Your task to perform on an android device: change notifications settings Image 0: 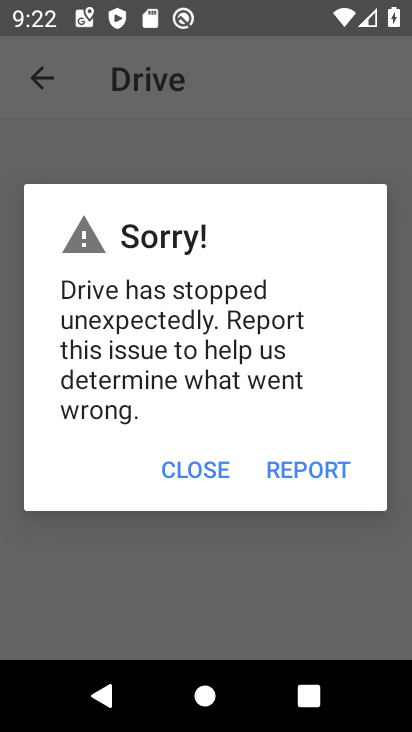
Step 0: click (334, 562)
Your task to perform on an android device: change notifications settings Image 1: 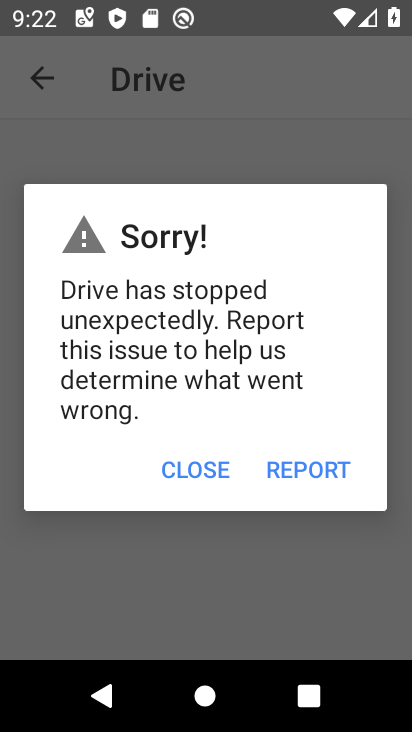
Step 1: press back button
Your task to perform on an android device: change notifications settings Image 2: 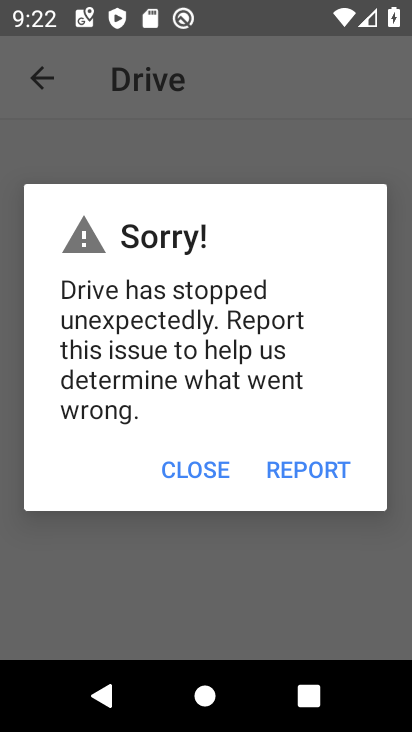
Step 2: press home button
Your task to perform on an android device: change notifications settings Image 3: 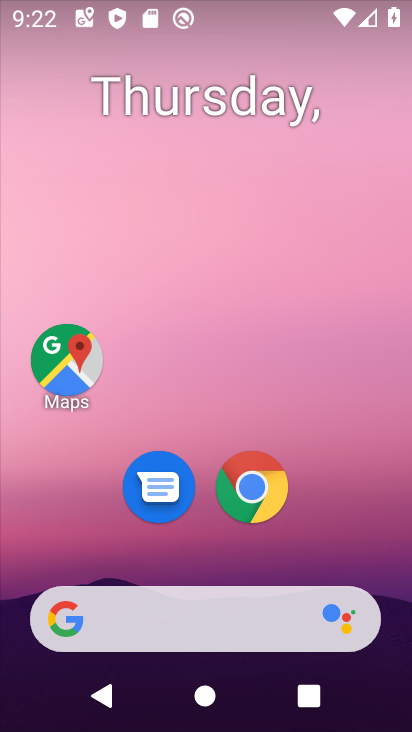
Step 3: drag from (343, 562) to (216, 280)
Your task to perform on an android device: change notifications settings Image 4: 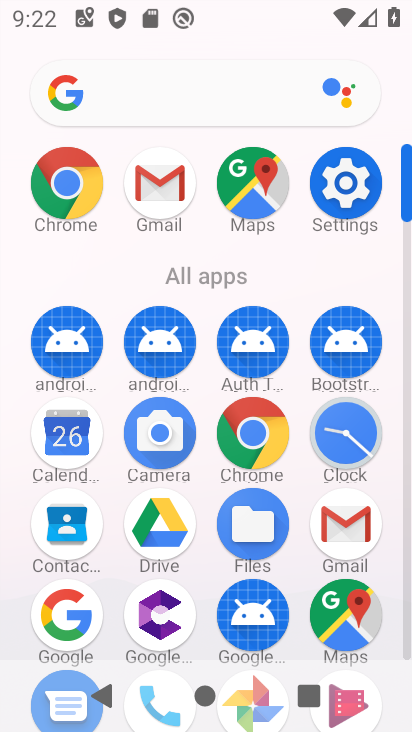
Step 4: click (337, 192)
Your task to perform on an android device: change notifications settings Image 5: 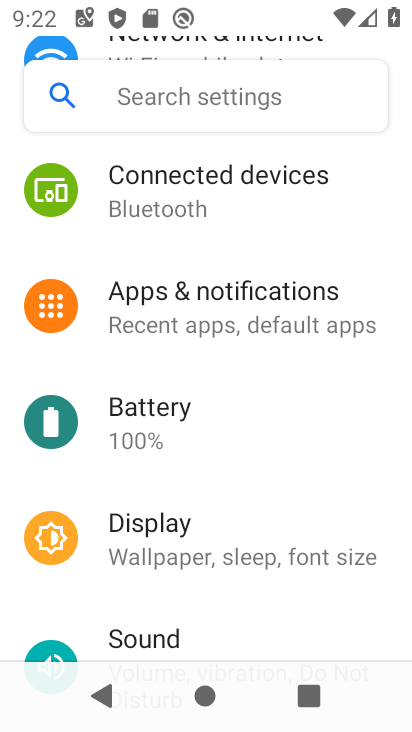
Step 5: click (214, 304)
Your task to perform on an android device: change notifications settings Image 6: 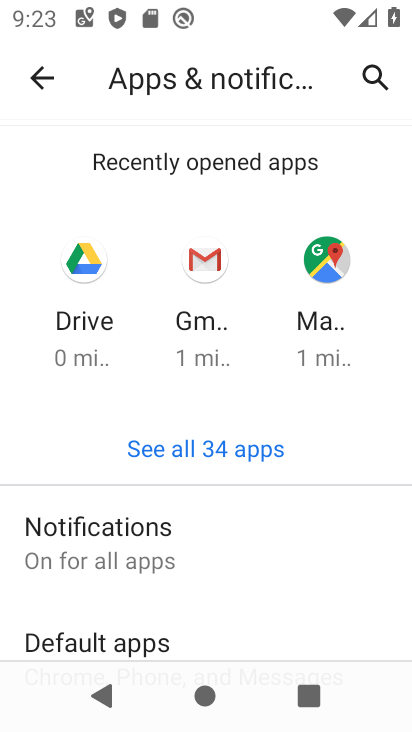
Step 6: click (64, 537)
Your task to perform on an android device: change notifications settings Image 7: 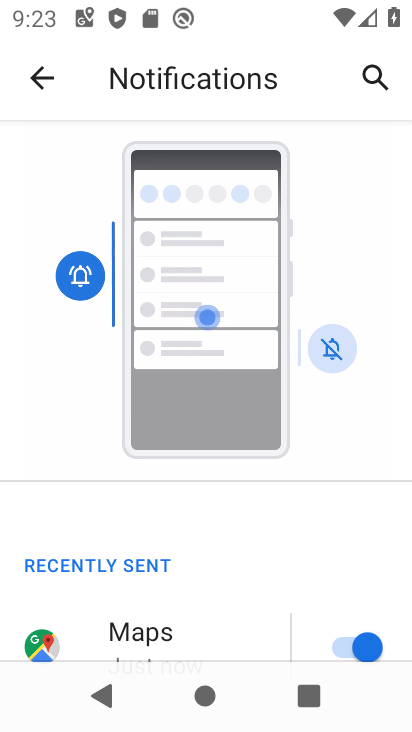
Step 7: click (358, 642)
Your task to perform on an android device: change notifications settings Image 8: 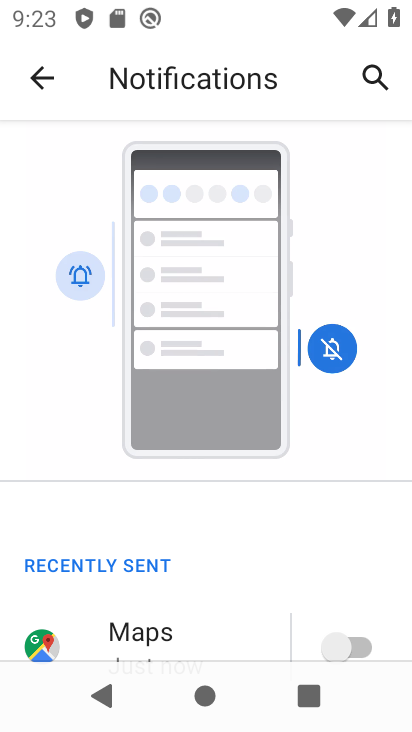
Step 8: task complete